Your task to perform on an android device: What's the weather? Image 0: 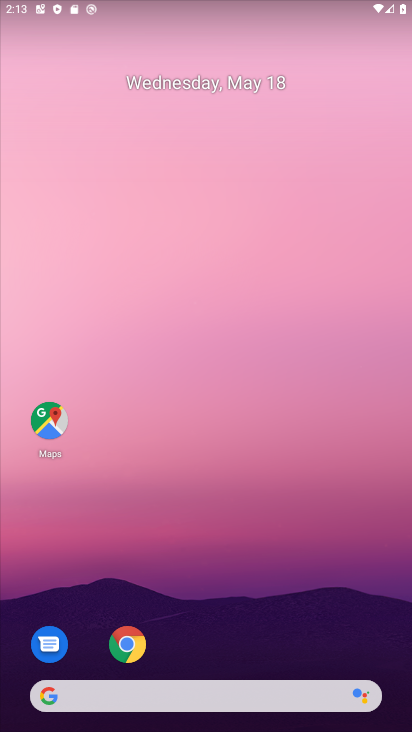
Step 0: click (254, 710)
Your task to perform on an android device: What's the weather? Image 1: 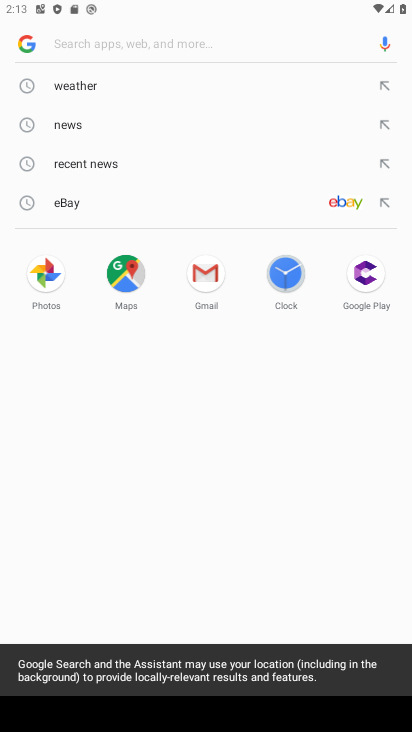
Step 1: click (105, 82)
Your task to perform on an android device: What's the weather? Image 2: 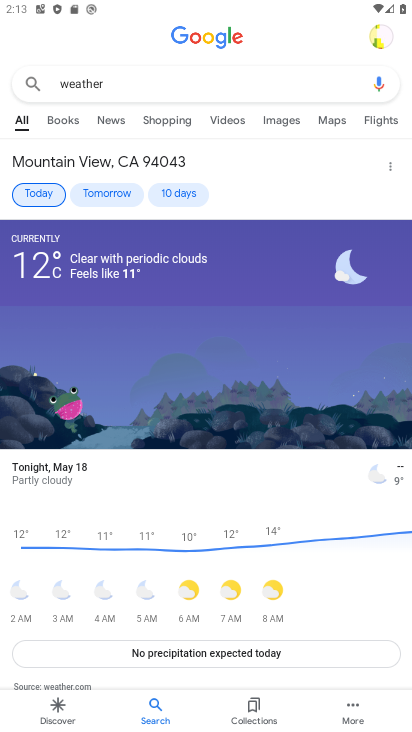
Step 2: task complete